Your task to perform on an android device: turn on javascript in the chrome app Image 0: 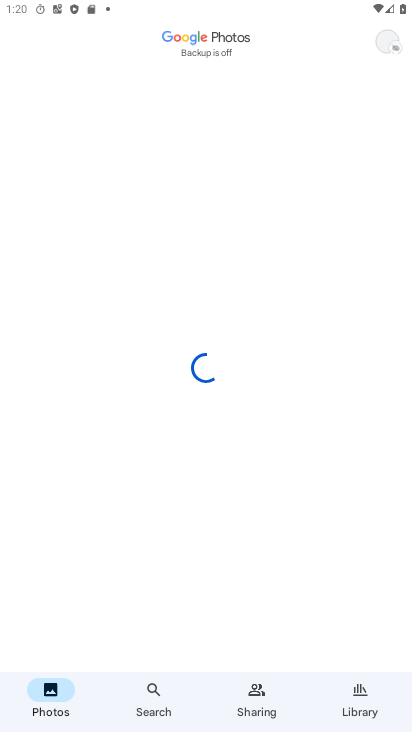
Step 0: press home button
Your task to perform on an android device: turn on javascript in the chrome app Image 1: 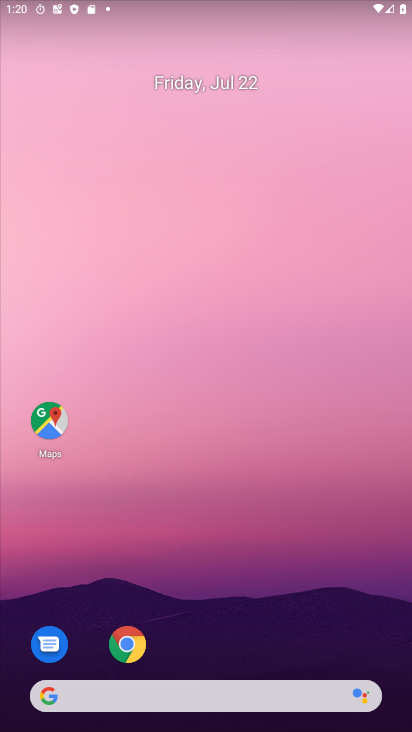
Step 1: drag from (179, 726) to (274, 0)
Your task to perform on an android device: turn on javascript in the chrome app Image 2: 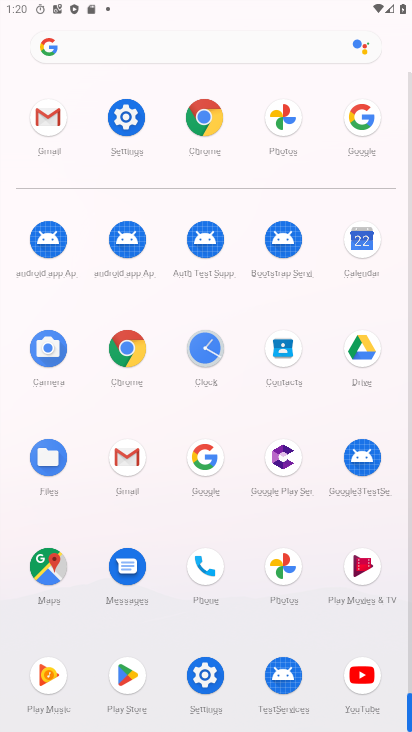
Step 2: click (147, 362)
Your task to perform on an android device: turn on javascript in the chrome app Image 3: 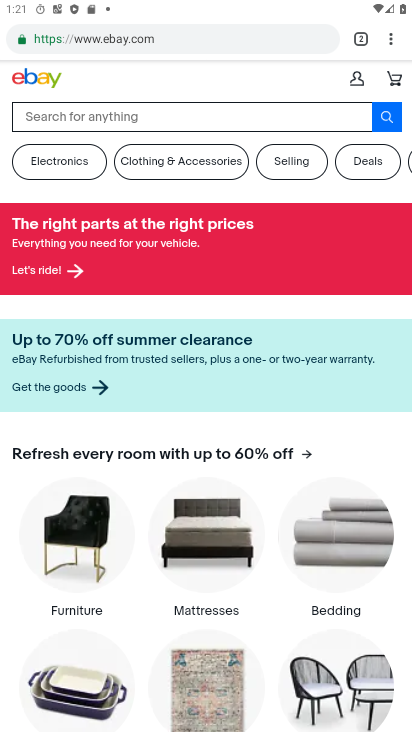
Step 3: click (393, 43)
Your task to perform on an android device: turn on javascript in the chrome app Image 4: 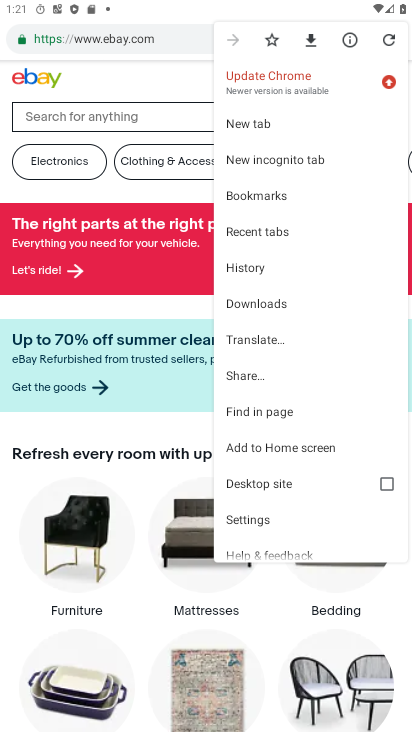
Step 4: click (290, 517)
Your task to perform on an android device: turn on javascript in the chrome app Image 5: 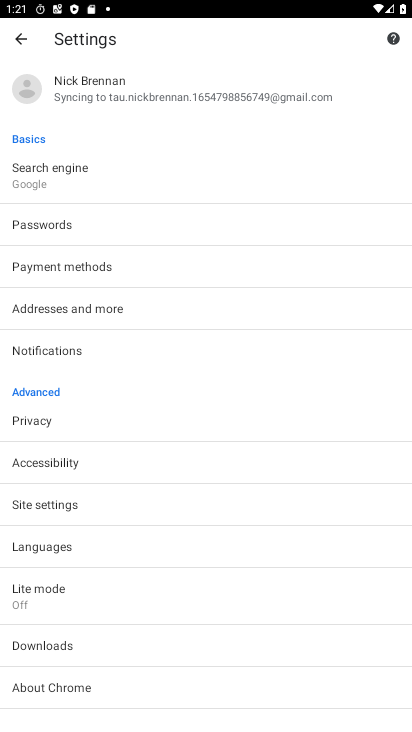
Step 5: click (100, 507)
Your task to perform on an android device: turn on javascript in the chrome app Image 6: 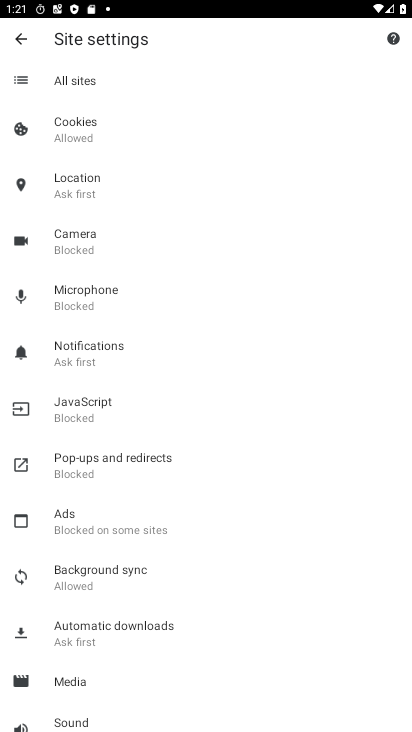
Step 6: click (137, 399)
Your task to perform on an android device: turn on javascript in the chrome app Image 7: 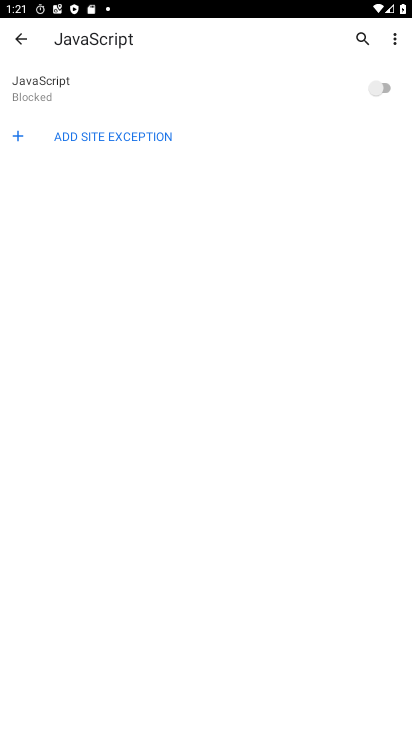
Step 7: click (393, 88)
Your task to perform on an android device: turn on javascript in the chrome app Image 8: 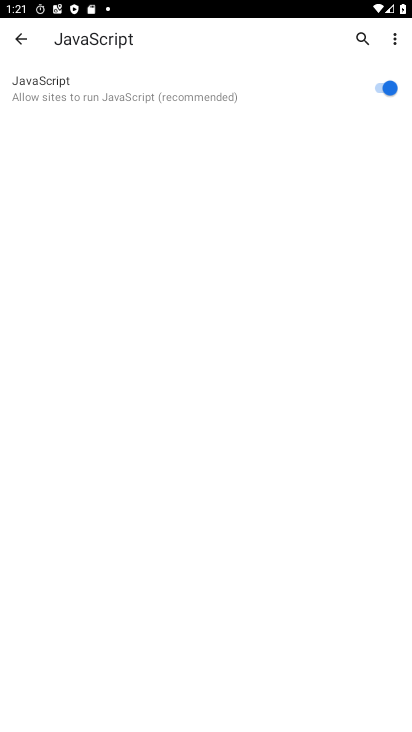
Step 8: task complete